Your task to perform on an android device: open app "VLC for Android" (install if not already installed) and enter user name: "Yves@outlook.com" and password: "internally" Image 0: 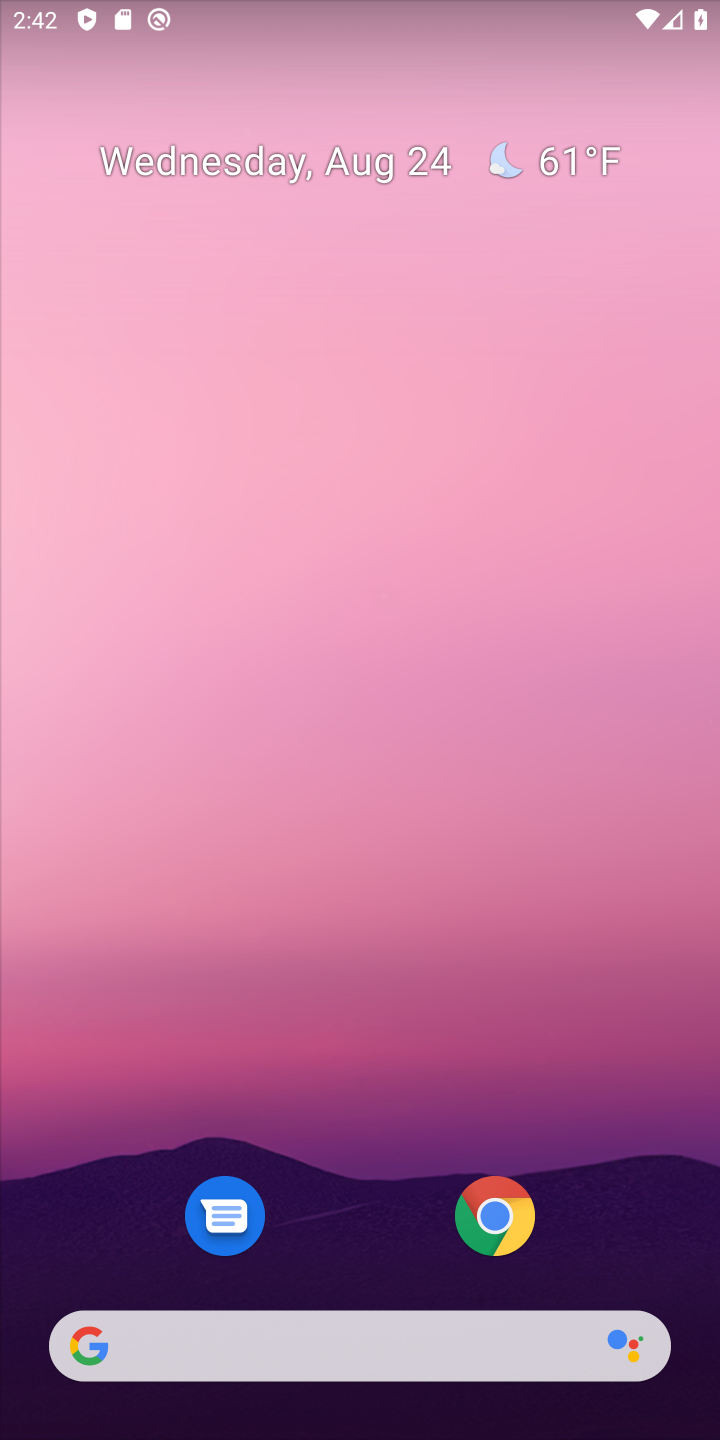
Step 0: press home button
Your task to perform on an android device: open app "VLC for Android" (install if not already installed) and enter user name: "Yves@outlook.com" and password: "internally" Image 1: 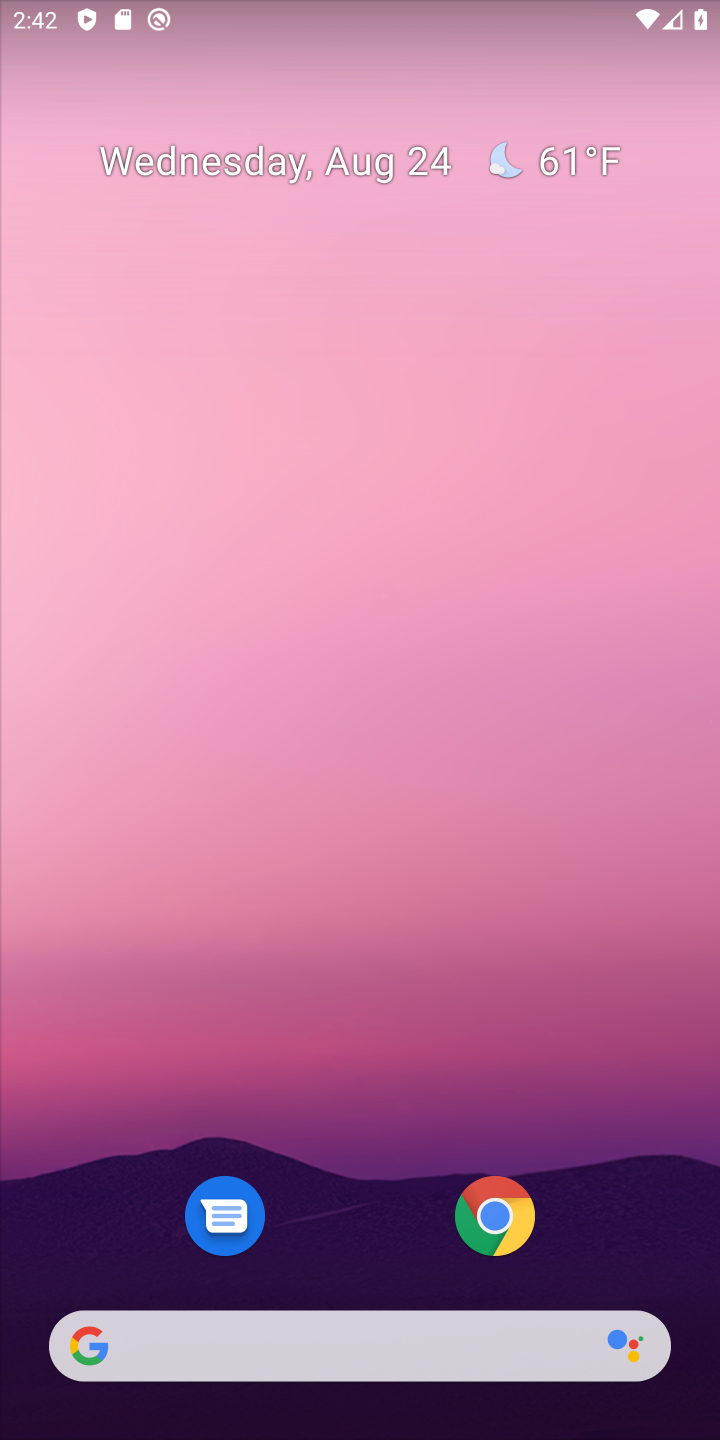
Step 1: drag from (627, 1164) to (622, 168)
Your task to perform on an android device: open app "VLC for Android" (install if not already installed) and enter user name: "Yves@outlook.com" and password: "internally" Image 2: 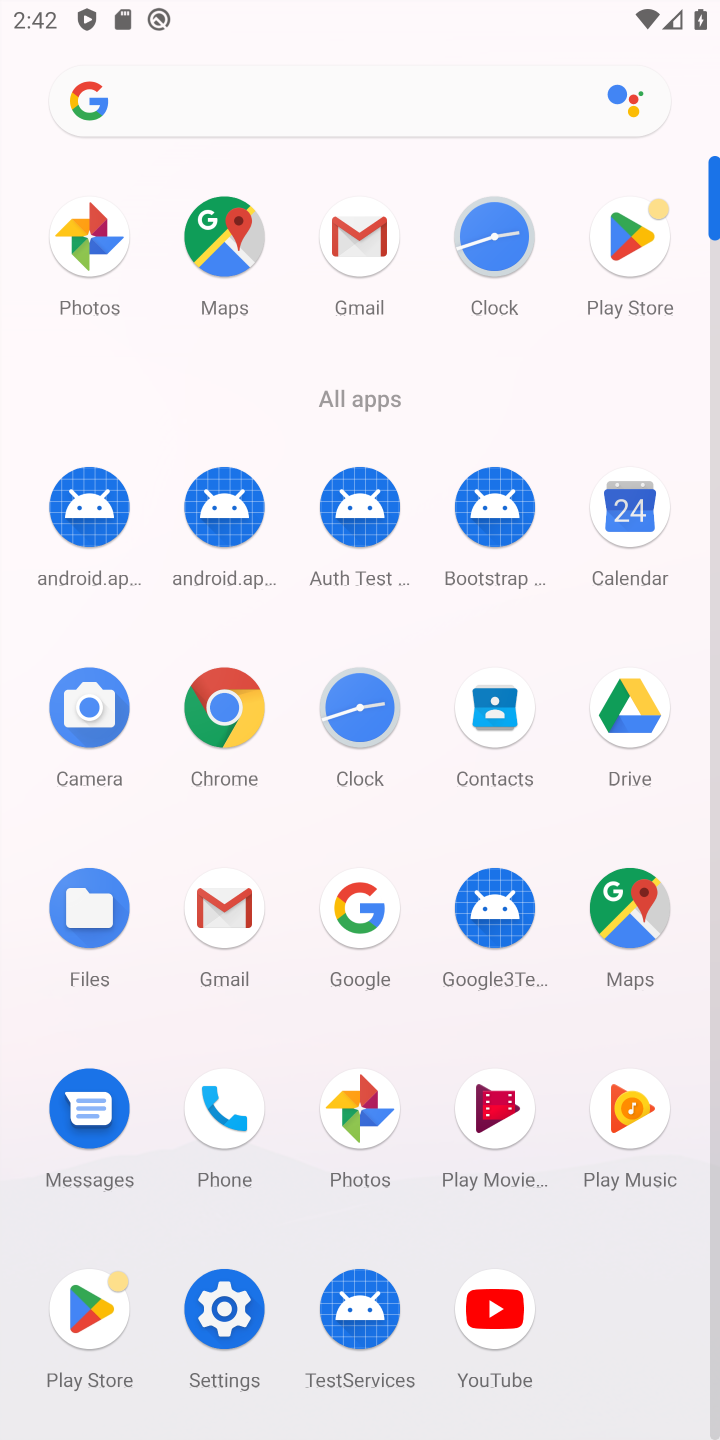
Step 2: click (627, 234)
Your task to perform on an android device: open app "VLC for Android" (install if not already installed) and enter user name: "Yves@outlook.com" and password: "internally" Image 3: 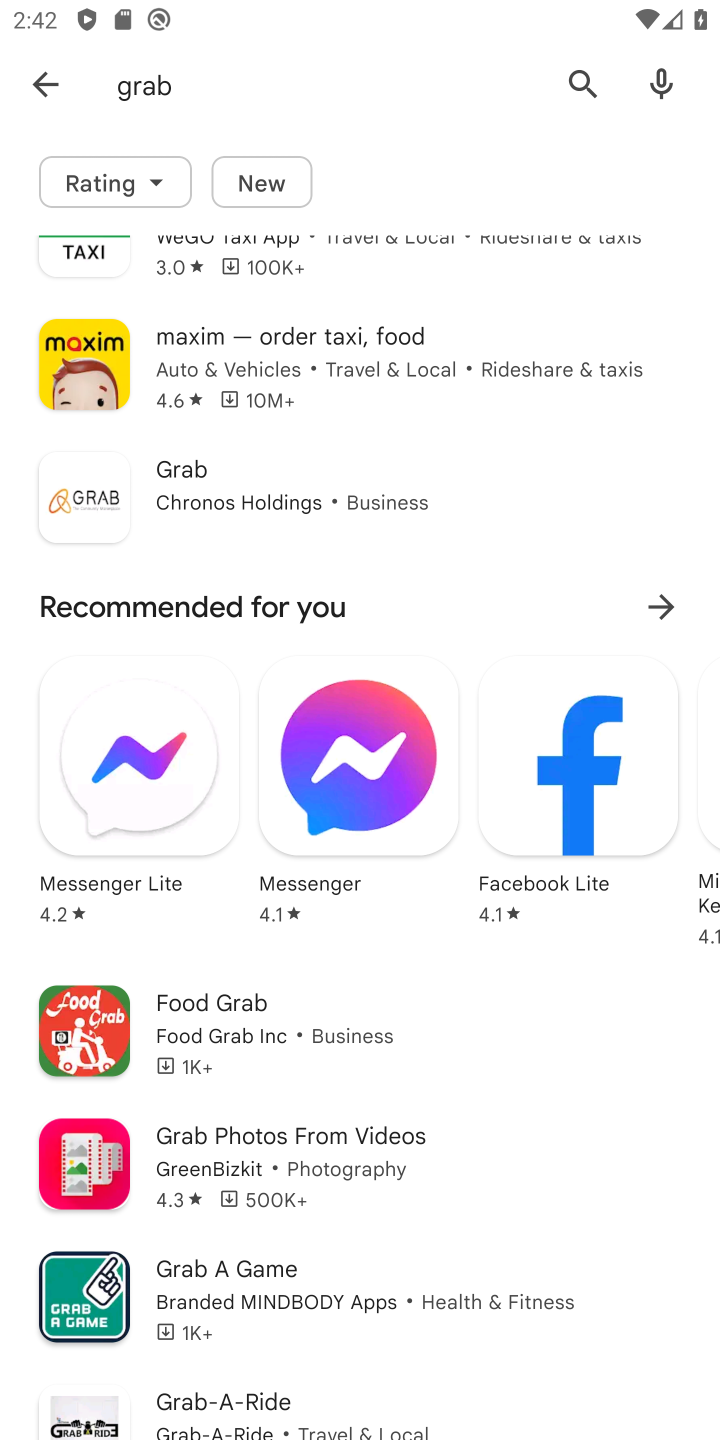
Step 3: press back button
Your task to perform on an android device: open app "VLC for Android" (install if not already installed) and enter user name: "Yves@outlook.com" and password: "internally" Image 4: 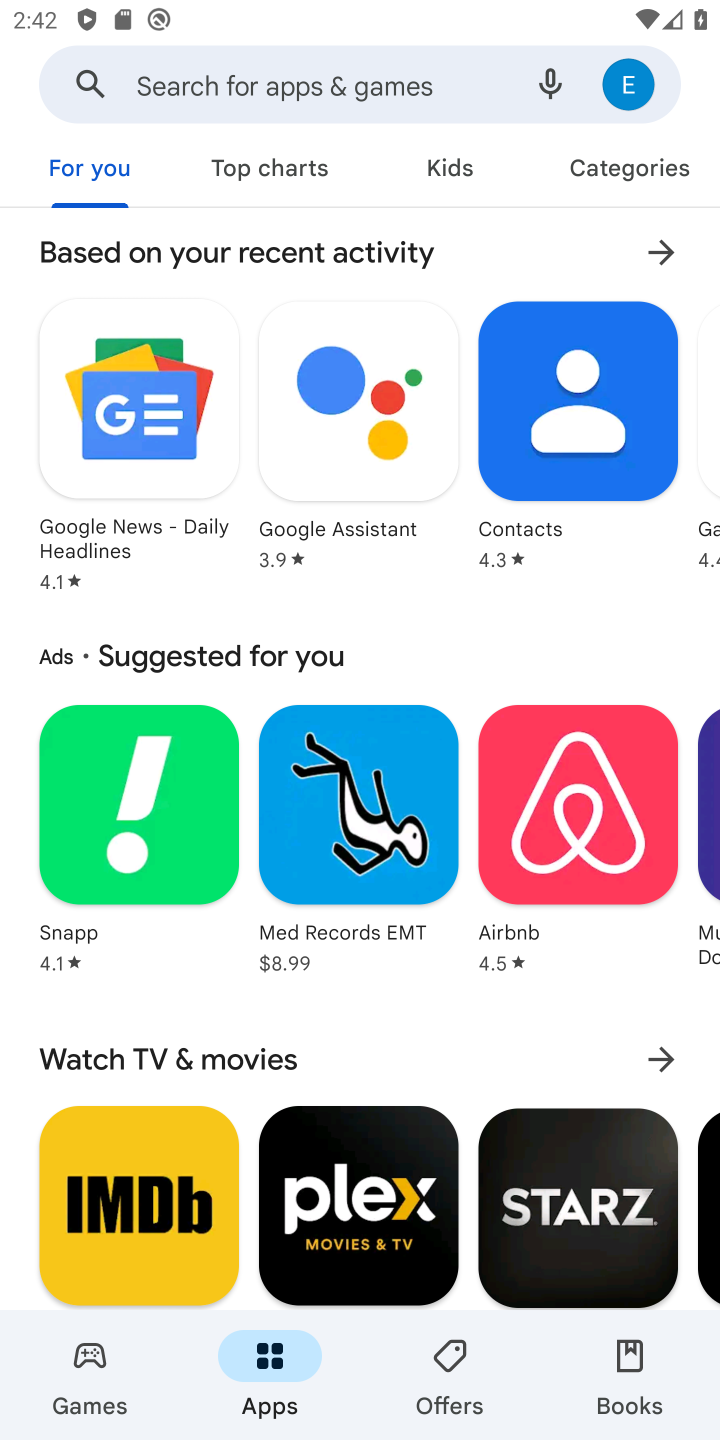
Step 4: click (321, 97)
Your task to perform on an android device: open app "VLC for Android" (install if not already installed) and enter user name: "Yves@outlook.com" and password: "internally" Image 5: 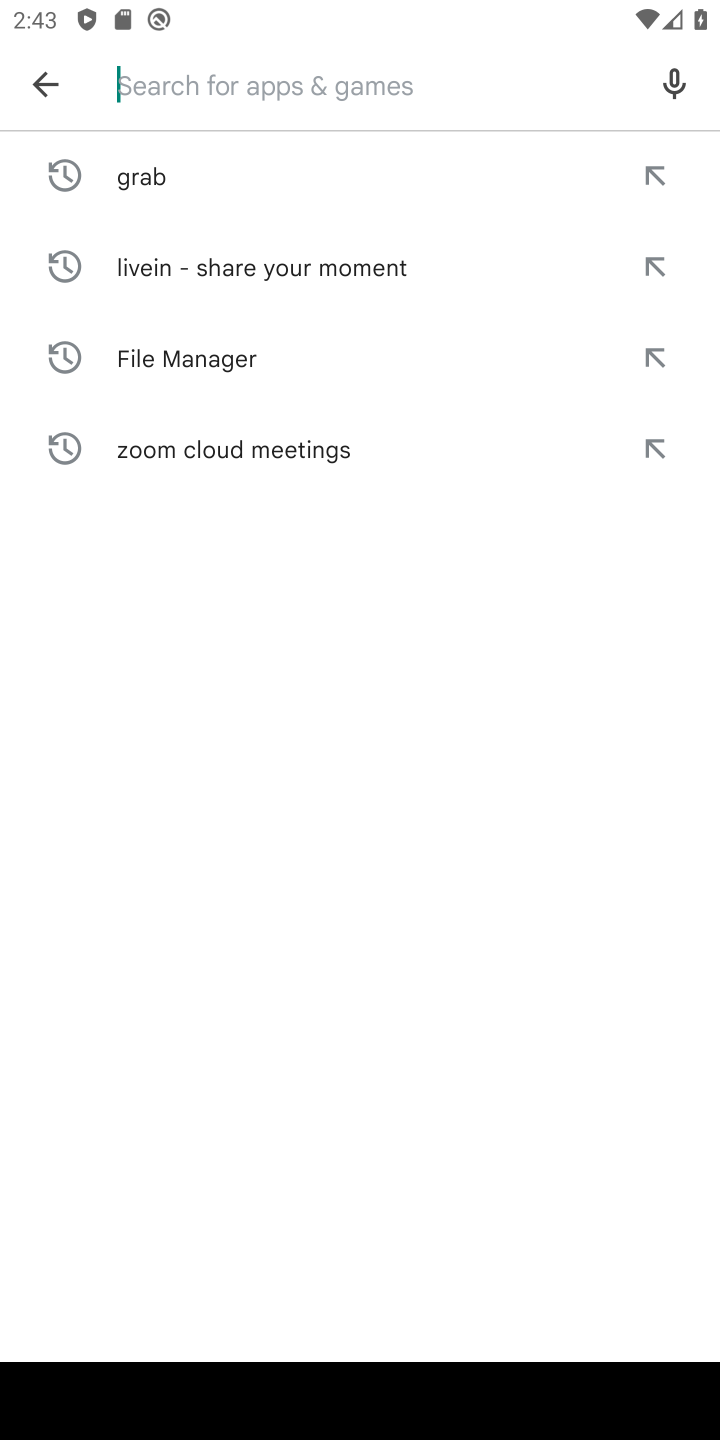
Step 5: type "VLC for Android"
Your task to perform on an android device: open app "VLC for Android" (install if not already installed) and enter user name: "Yves@outlook.com" and password: "internally" Image 6: 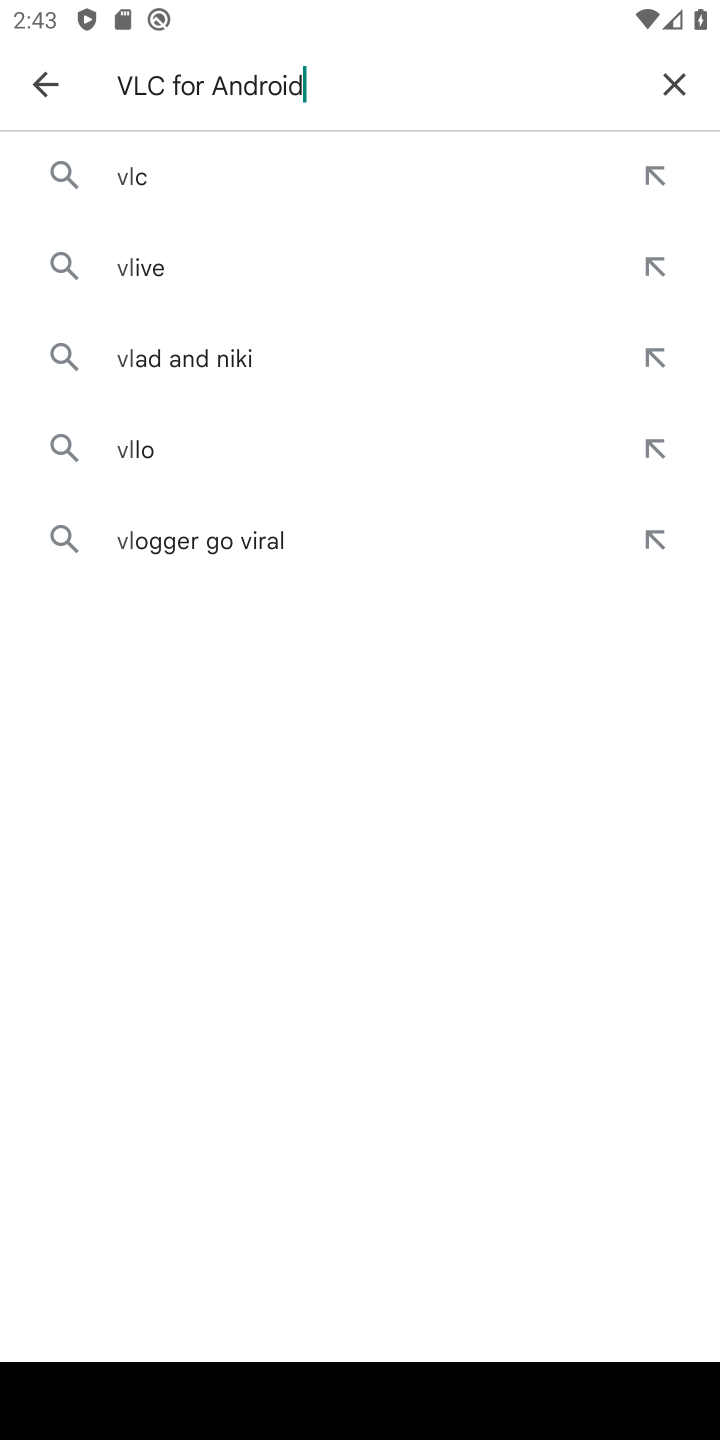
Step 6: press enter
Your task to perform on an android device: open app "VLC for Android" (install if not already installed) and enter user name: "Yves@outlook.com" and password: "internally" Image 7: 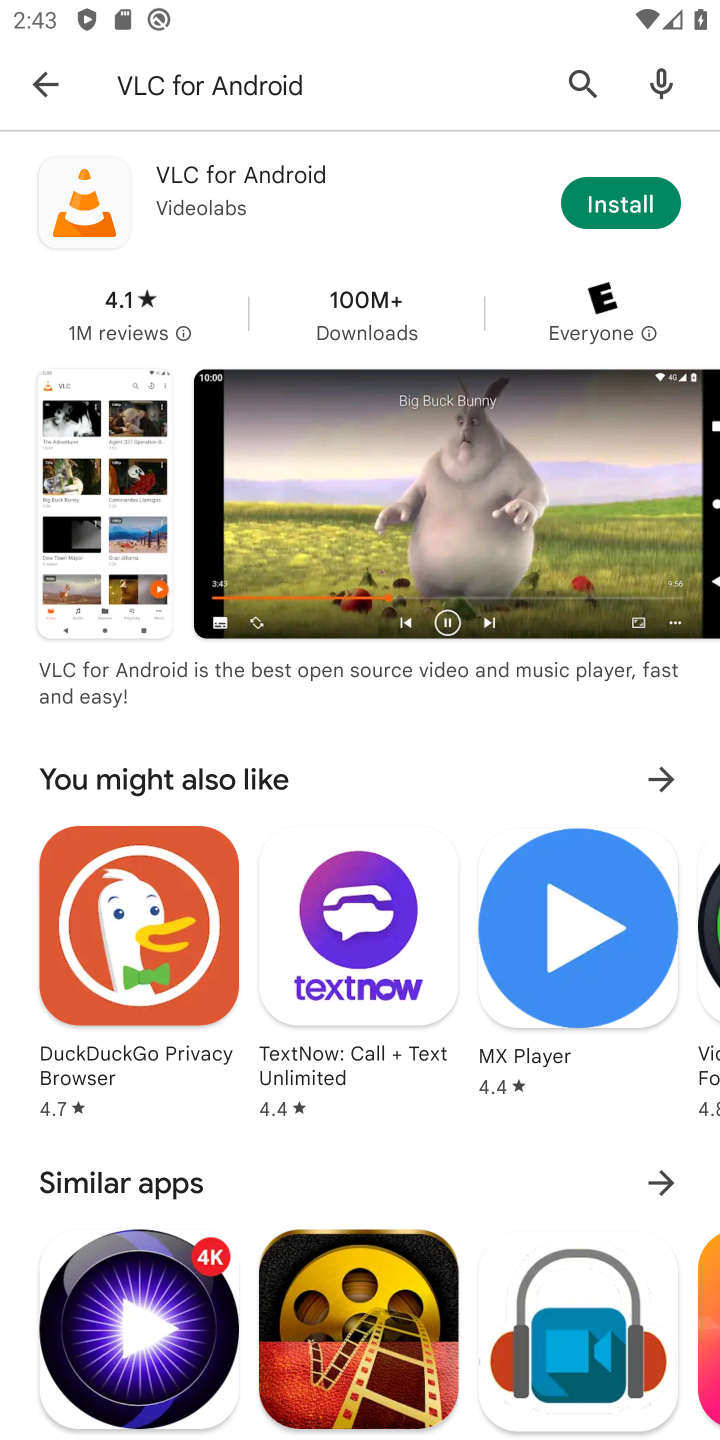
Step 7: click (637, 208)
Your task to perform on an android device: open app "VLC for Android" (install if not already installed) and enter user name: "Yves@outlook.com" and password: "internally" Image 8: 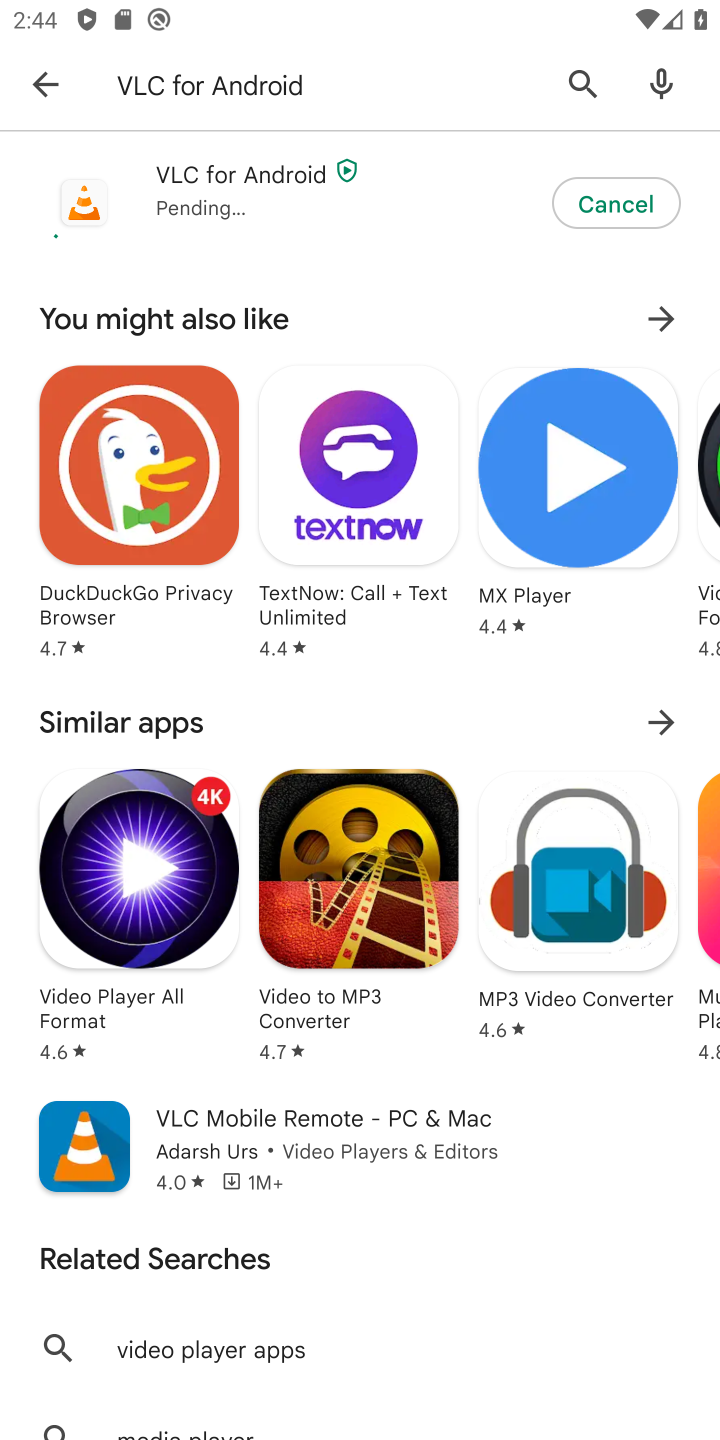
Step 8: task complete